Your task to perform on an android device: Go to Amazon Image 0: 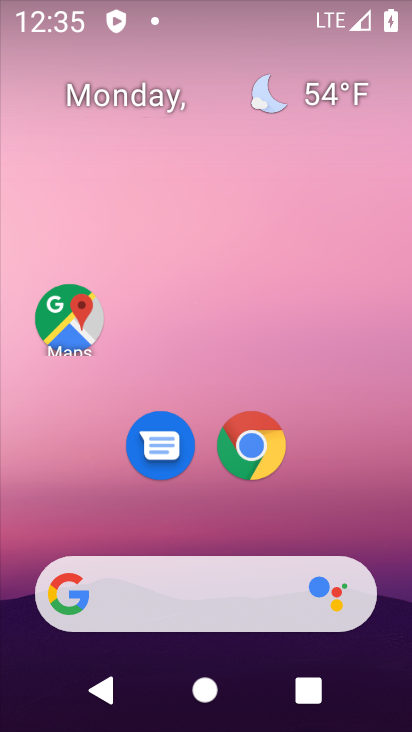
Step 0: drag from (376, 392) to (325, 29)
Your task to perform on an android device: Go to Amazon Image 1: 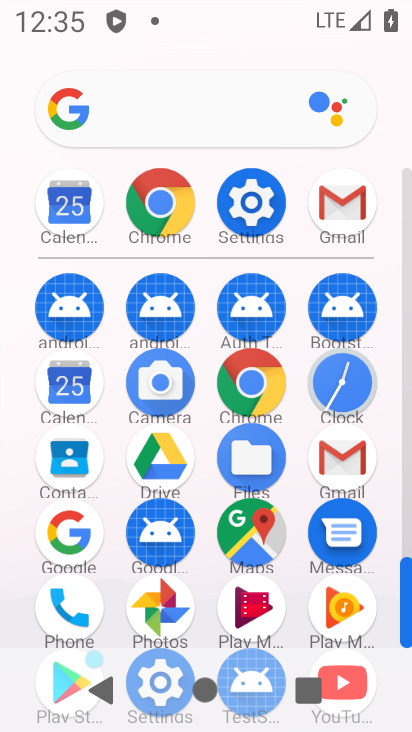
Step 1: click (268, 387)
Your task to perform on an android device: Go to Amazon Image 2: 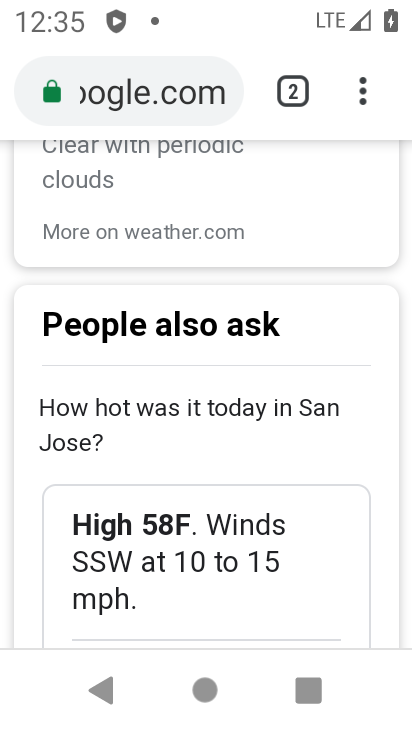
Step 2: click (174, 88)
Your task to perform on an android device: Go to Amazon Image 3: 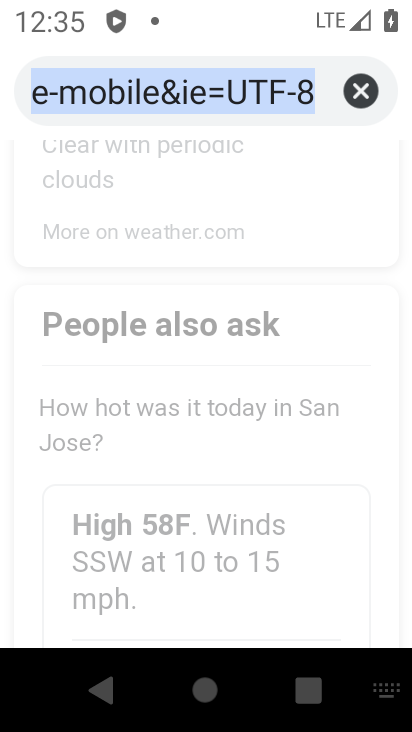
Step 3: click (352, 90)
Your task to perform on an android device: Go to Amazon Image 4: 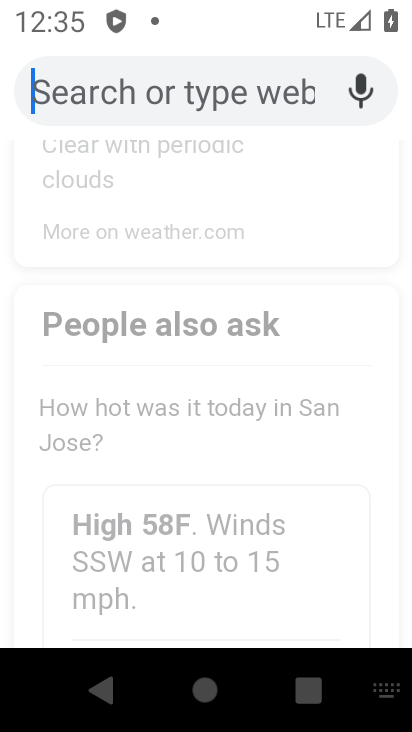
Step 4: type "amazon"
Your task to perform on an android device: Go to Amazon Image 5: 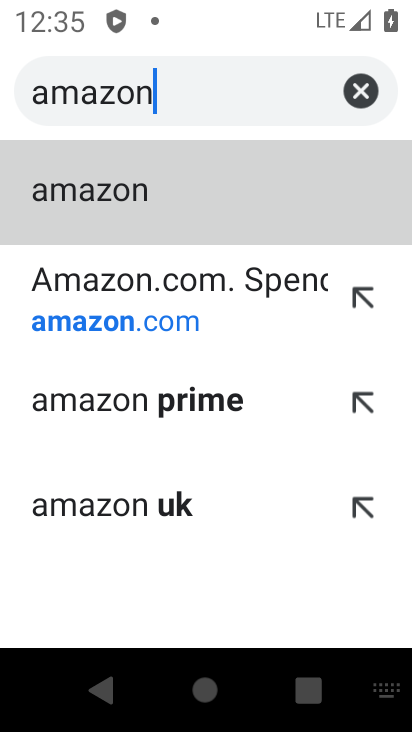
Step 5: click (108, 200)
Your task to perform on an android device: Go to Amazon Image 6: 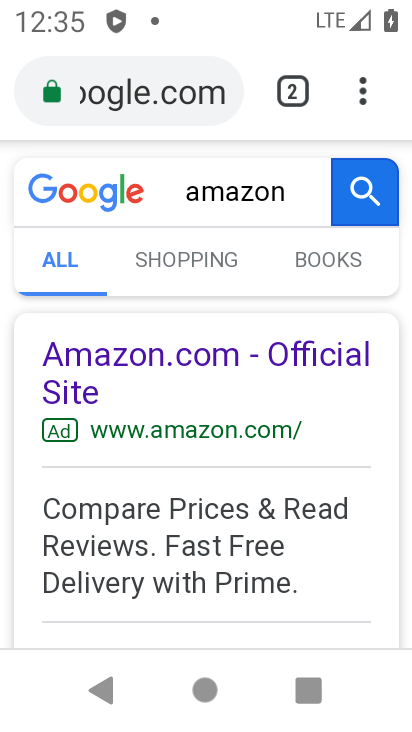
Step 6: click (116, 368)
Your task to perform on an android device: Go to Amazon Image 7: 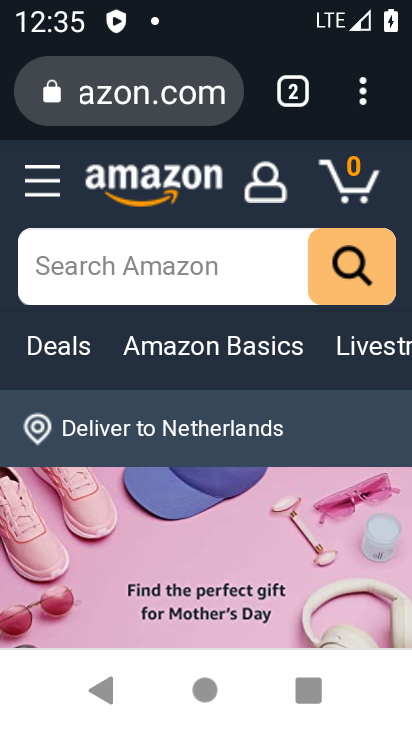
Step 7: task complete